Your task to perform on an android device: turn on javascript in the chrome app Image 0: 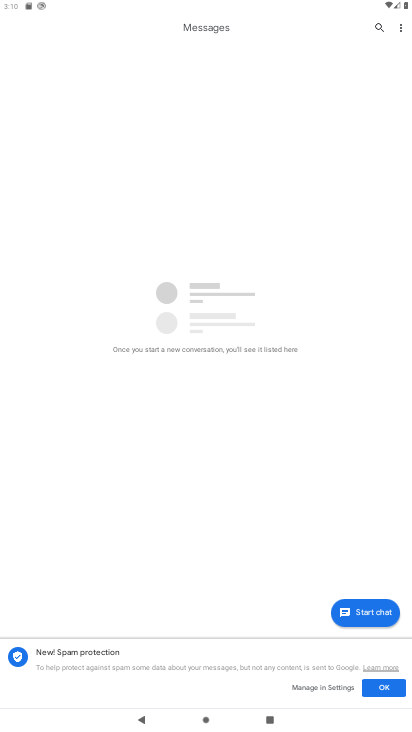
Step 0: press back button
Your task to perform on an android device: turn on javascript in the chrome app Image 1: 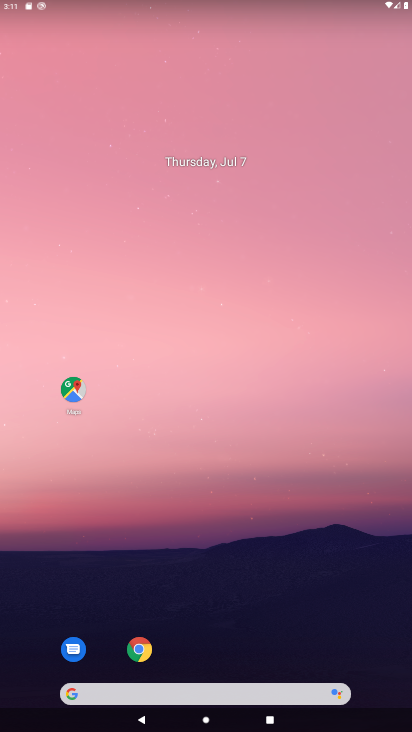
Step 1: click (143, 641)
Your task to perform on an android device: turn on javascript in the chrome app Image 2: 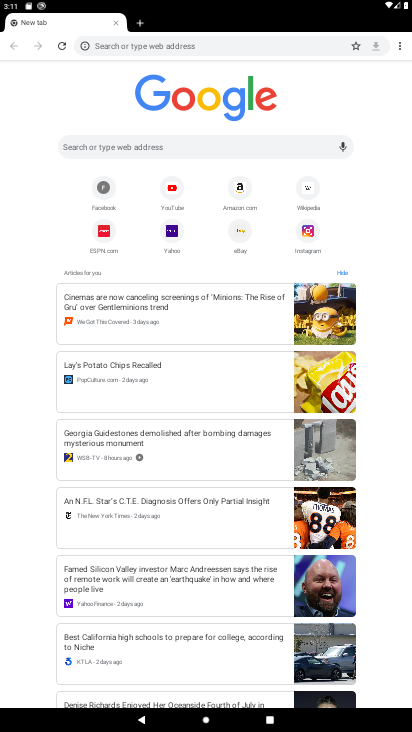
Step 2: drag from (396, 45) to (307, 208)
Your task to perform on an android device: turn on javascript in the chrome app Image 3: 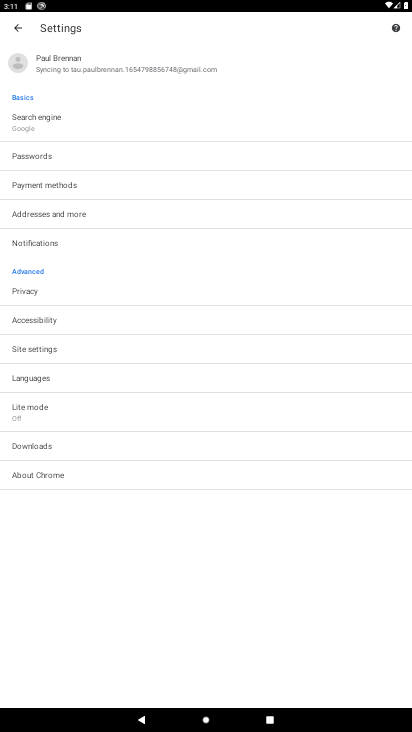
Step 3: click (32, 351)
Your task to perform on an android device: turn on javascript in the chrome app Image 4: 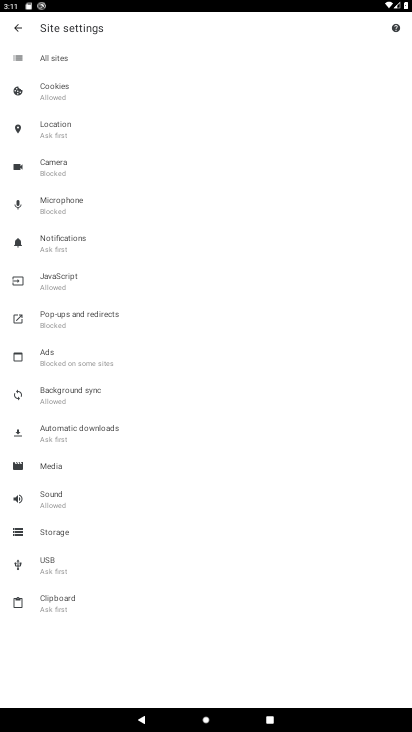
Step 4: click (56, 283)
Your task to perform on an android device: turn on javascript in the chrome app Image 5: 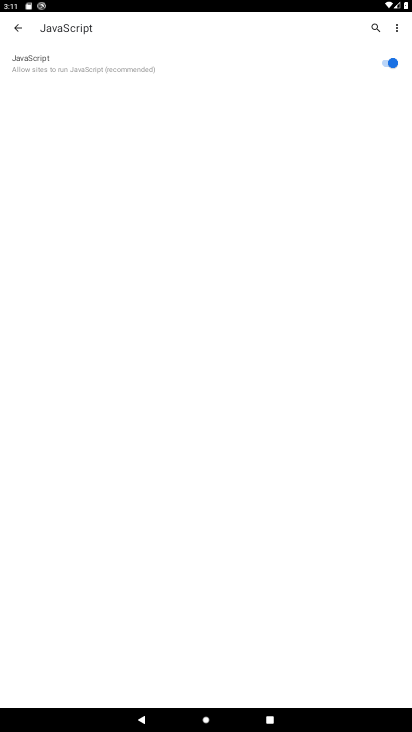
Step 5: task complete